Your task to perform on an android device: Open Youtube and go to "Your channel" Image 0: 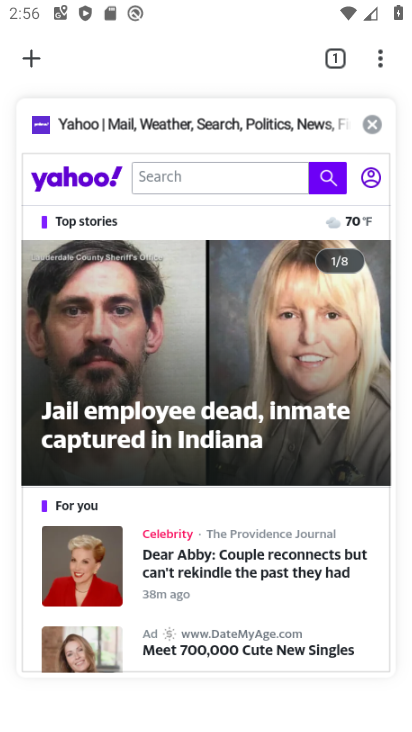
Step 0: press home button
Your task to perform on an android device: Open Youtube and go to "Your channel" Image 1: 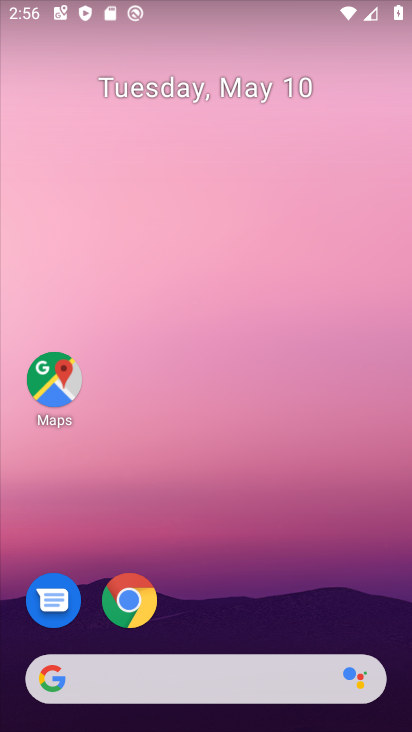
Step 1: drag from (278, 598) to (299, 125)
Your task to perform on an android device: Open Youtube and go to "Your channel" Image 2: 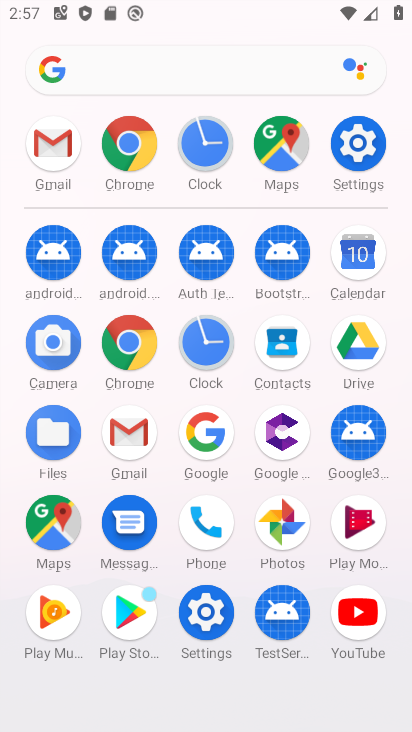
Step 2: click (360, 634)
Your task to perform on an android device: Open Youtube and go to "Your channel" Image 3: 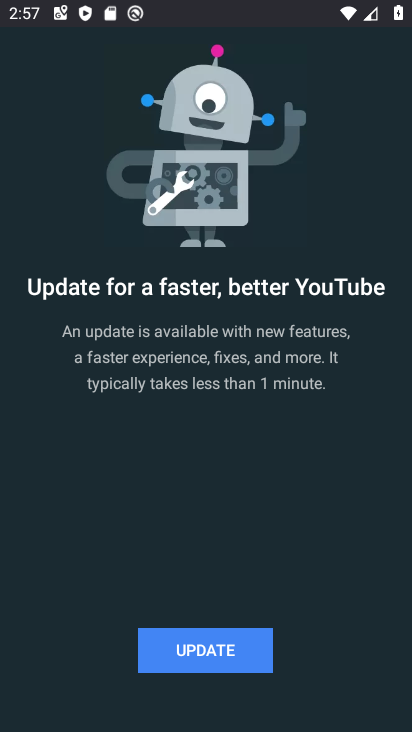
Step 3: task complete